Your task to perform on an android device: Go to Android settings Image 0: 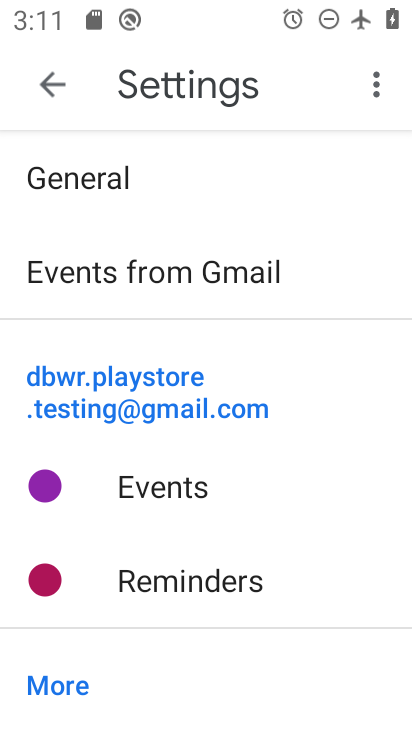
Step 0: press home button
Your task to perform on an android device: Go to Android settings Image 1: 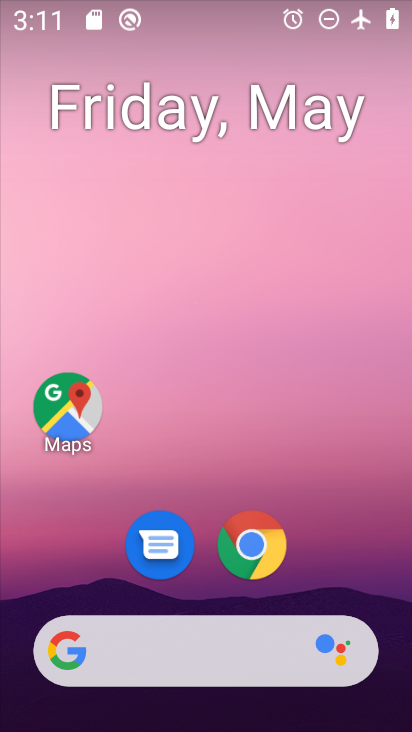
Step 1: drag from (276, 583) to (286, 270)
Your task to perform on an android device: Go to Android settings Image 2: 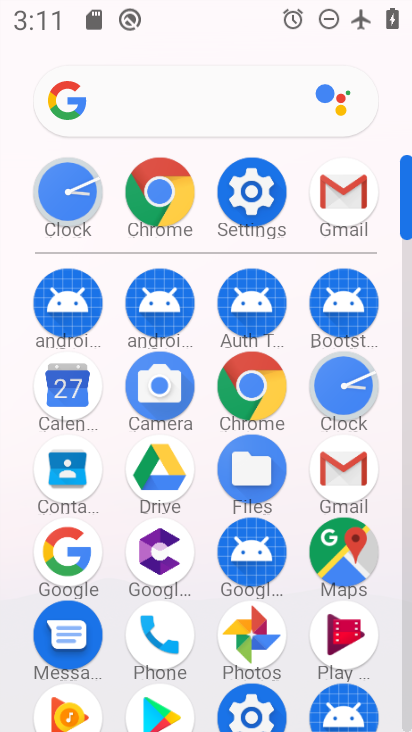
Step 2: click (262, 700)
Your task to perform on an android device: Go to Android settings Image 3: 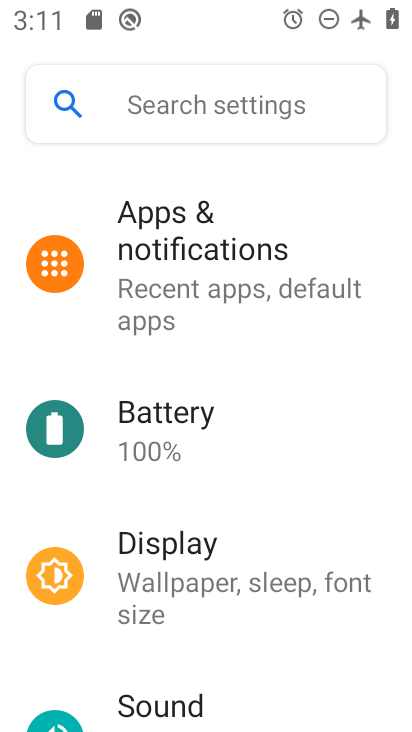
Step 3: task complete